Your task to perform on an android device: Open Google Chrome Image 0: 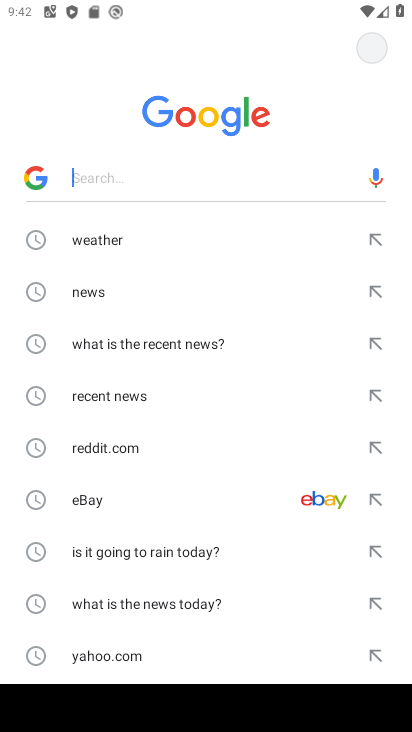
Step 0: press home button
Your task to perform on an android device: Open Google Chrome Image 1: 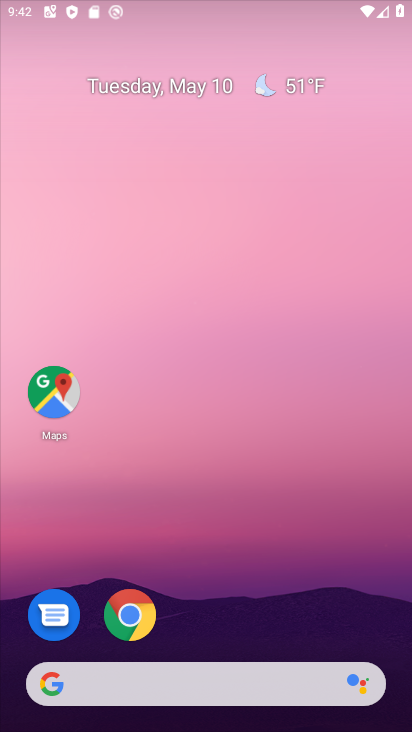
Step 1: click (131, 610)
Your task to perform on an android device: Open Google Chrome Image 2: 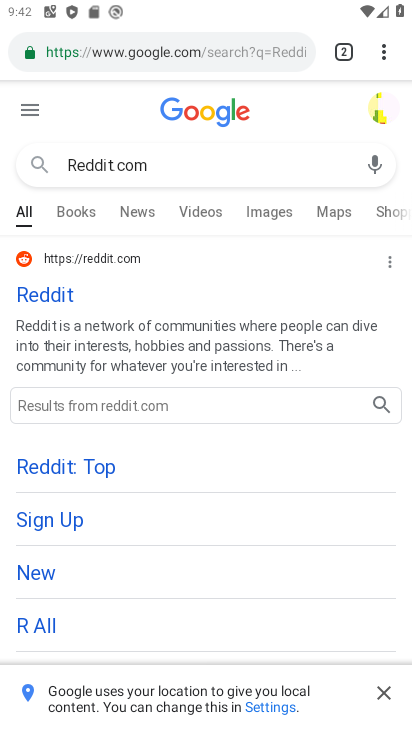
Step 2: task complete